Your task to perform on an android device: snooze an email in the gmail app Image 0: 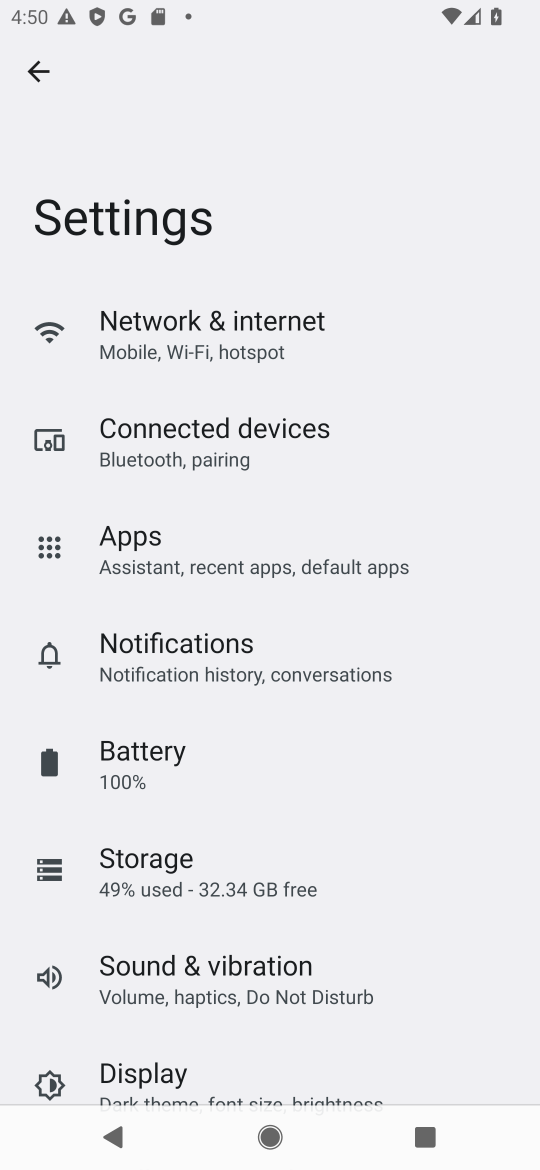
Step 0: press home button
Your task to perform on an android device: snooze an email in the gmail app Image 1: 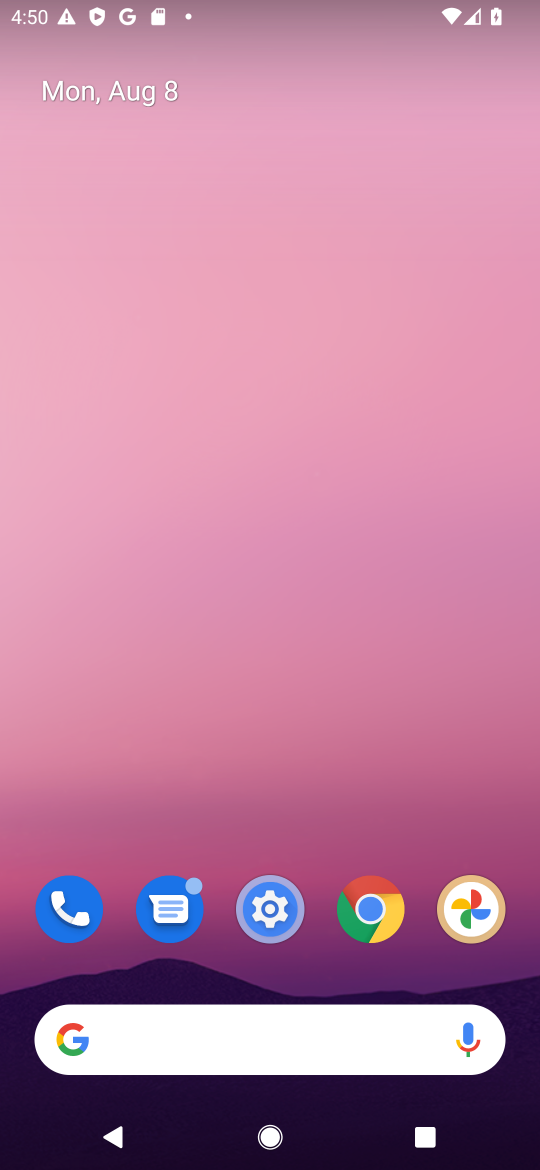
Step 1: drag from (318, 1039) to (443, 90)
Your task to perform on an android device: snooze an email in the gmail app Image 2: 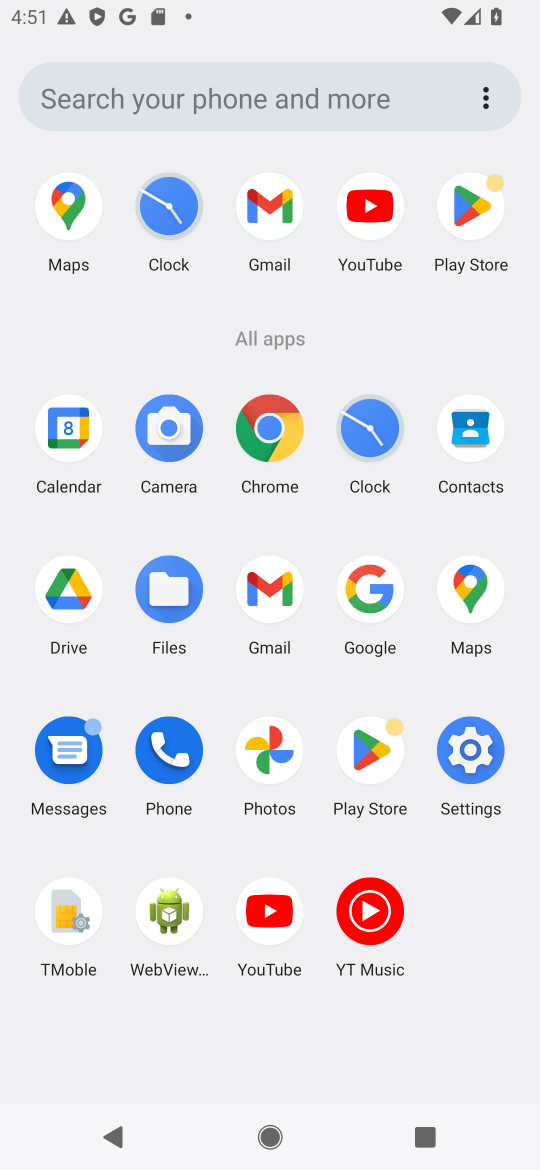
Step 2: click (270, 208)
Your task to perform on an android device: snooze an email in the gmail app Image 3: 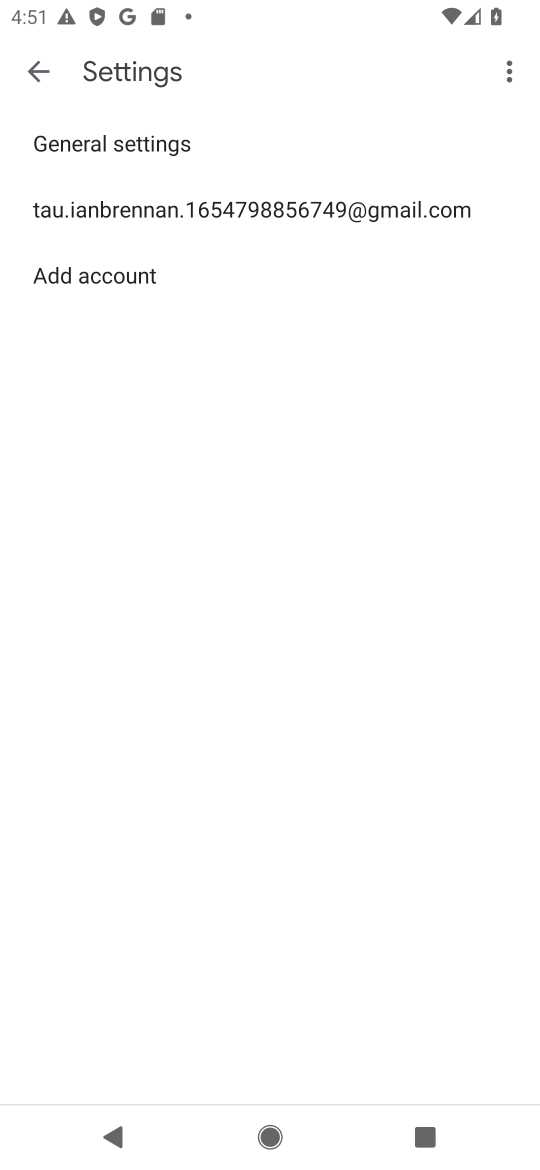
Step 3: click (40, 68)
Your task to perform on an android device: snooze an email in the gmail app Image 4: 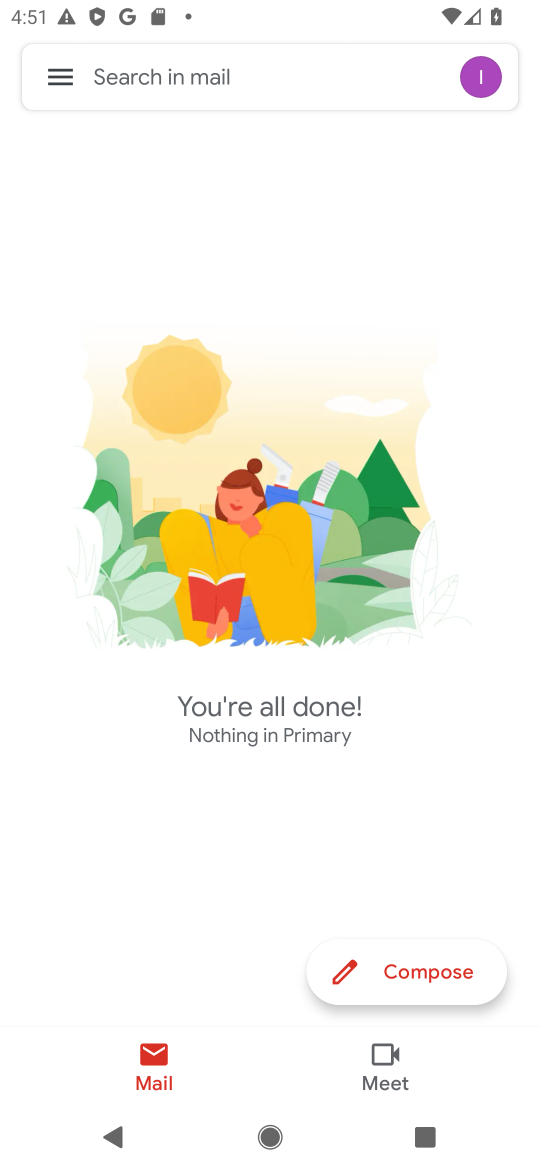
Step 4: task complete